Your task to perform on an android device: Open settings Image 0: 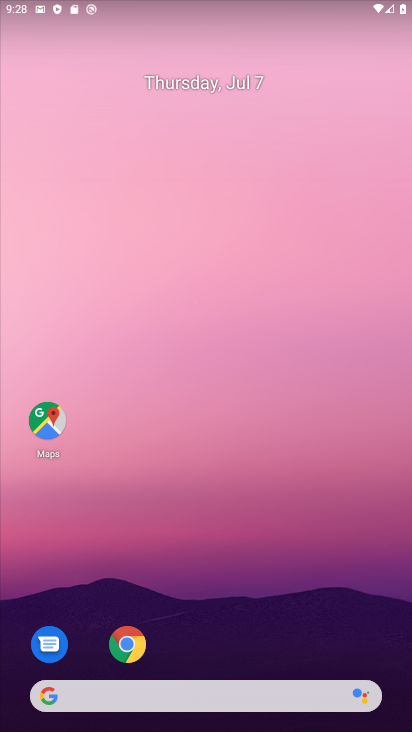
Step 0: click (221, 236)
Your task to perform on an android device: Open settings Image 1: 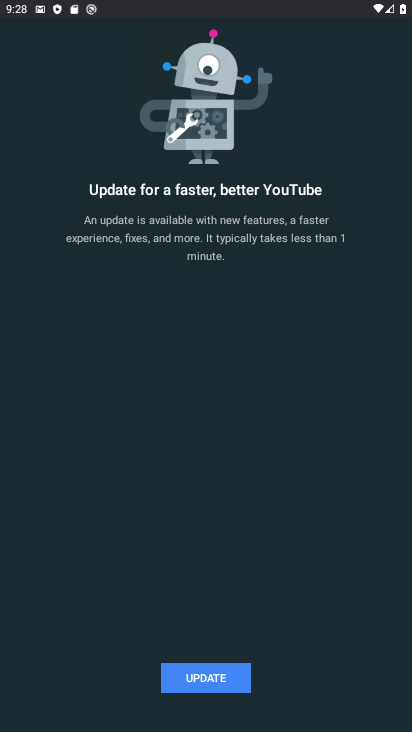
Step 1: press home button
Your task to perform on an android device: Open settings Image 2: 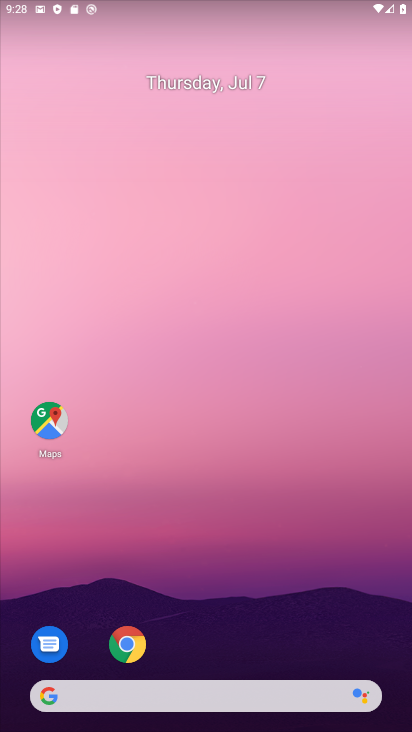
Step 2: drag from (197, 213) to (231, 256)
Your task to perform on an android device: Open settings Image 3: 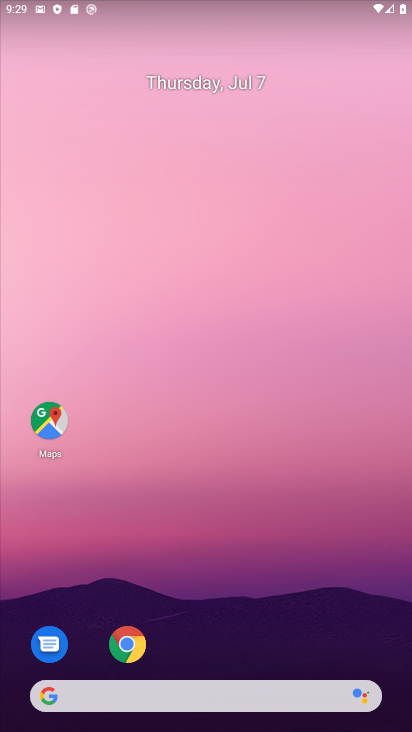
Step 3: drag from (205, 506) to (194, 45)
Your task to perform on an android device: Open settings Image 4: 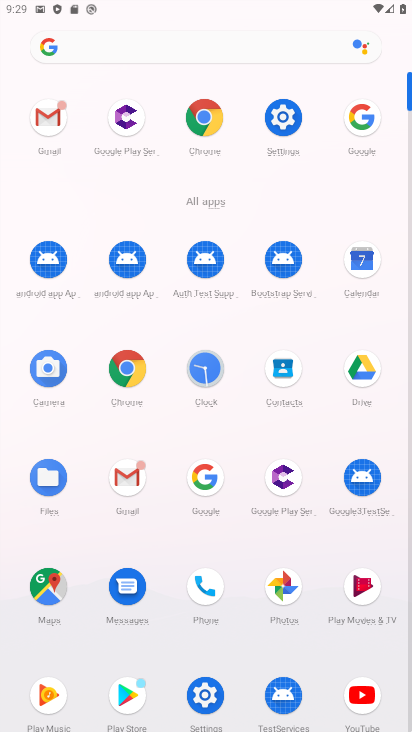
Step 4: click (286, 166)
Your task to perform on an android device: Open settings Image 5: 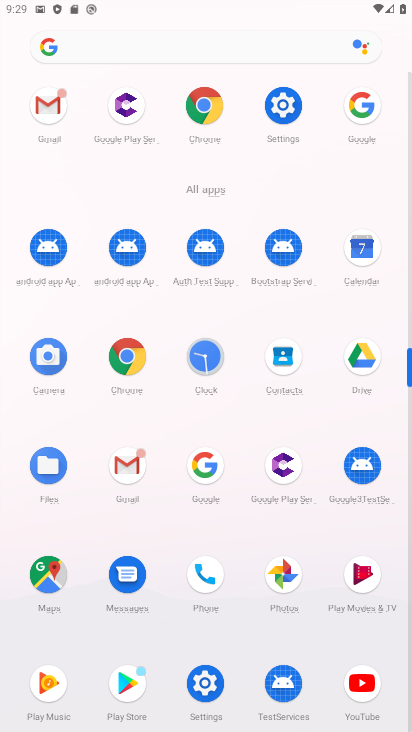
Step 5: click (286, 140)
Your task to perform on an android device: Open settings Image 6: 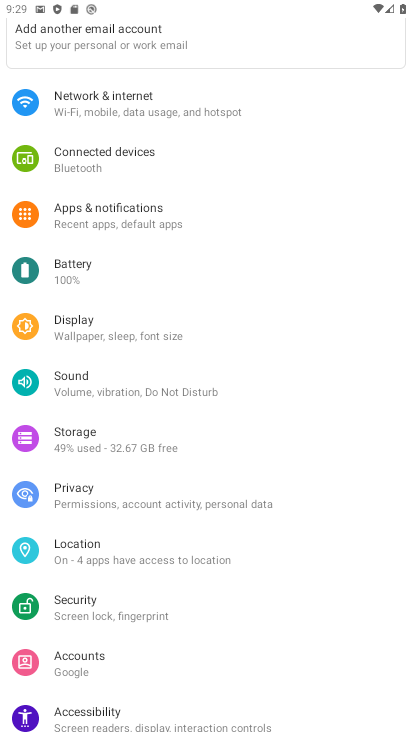
Step 6: task complete